Your task to perform on an android device: read, delete, or share a saved page in the chrome app Image 0: 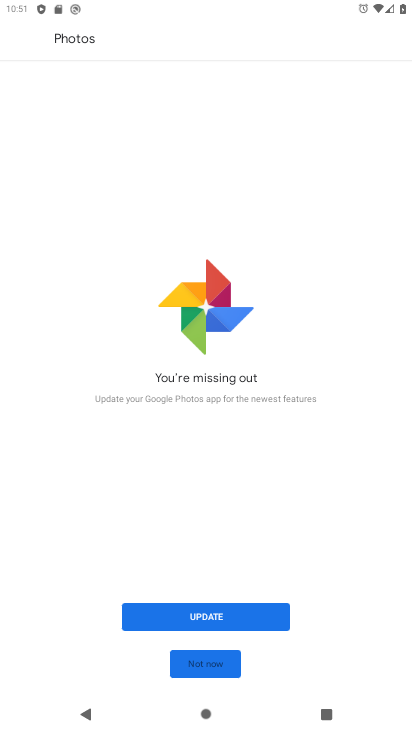
Step 0: press home button
Your task to perform on an android device: read, delete, or share a saved page in the chrome app Image 1: 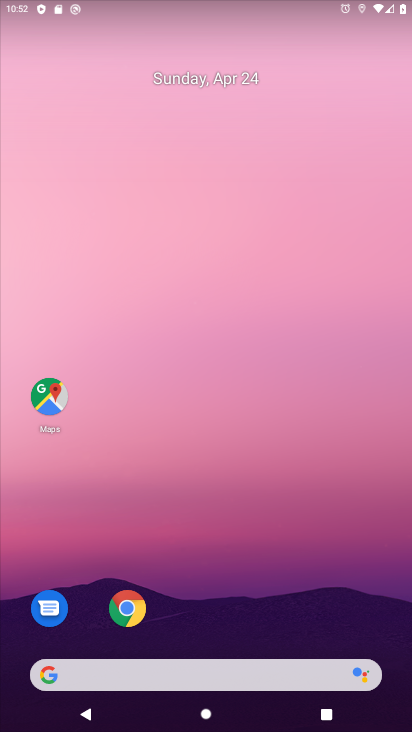
Step 1: click (128, 608)
Your task to perform on an android device: read, delete, or share a saved page in the chrome app Image 2: 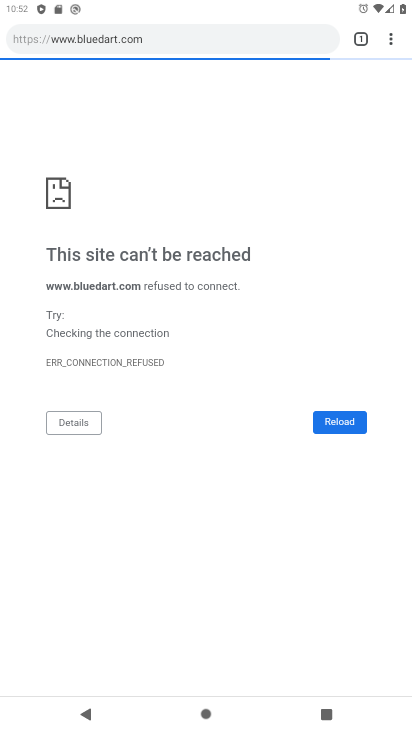
Step 2: click (392, 42)
Your task to perform on an android device: read, delete, or share a saved page in the chrome app Image 3: 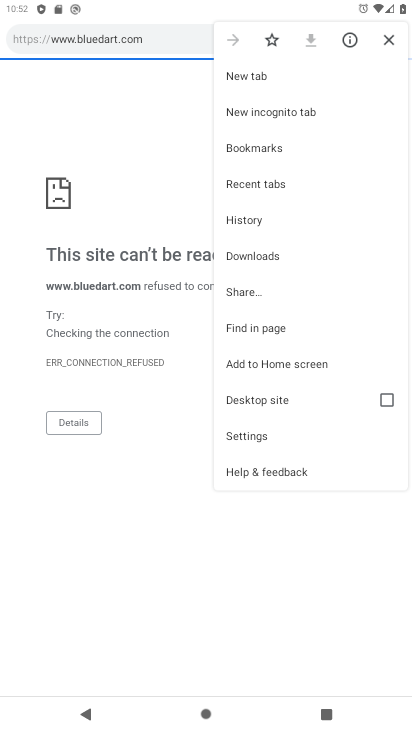
Step 3: click (254, 252)
Your task to perform on an android device: read, delete, or share a saved page in the chrome app Image 4: 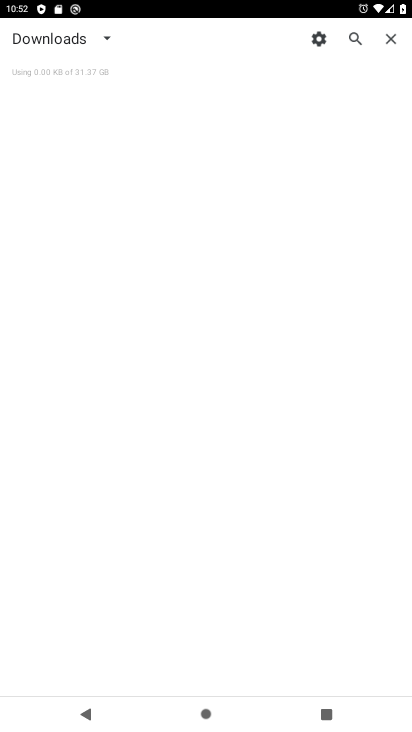
Step 4: click (102, 33)
Your task to perform on an android device: read, delete, or share a saved page in the chrome app Image 5: 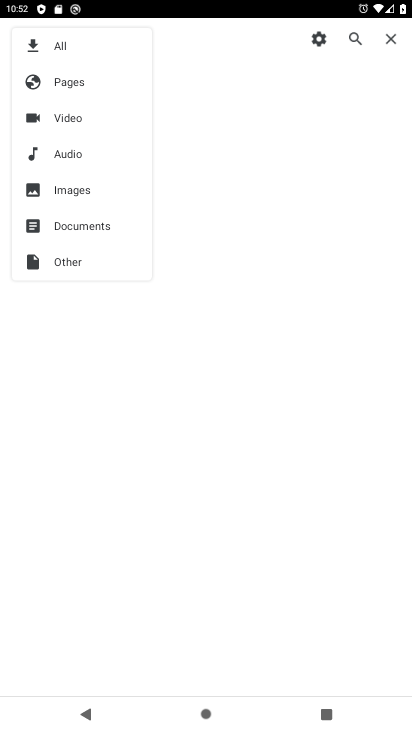
Step 5: click (64, 80)
Your task to perform on an android device: read, delete, or share a saved page in the chrome app Image 6: 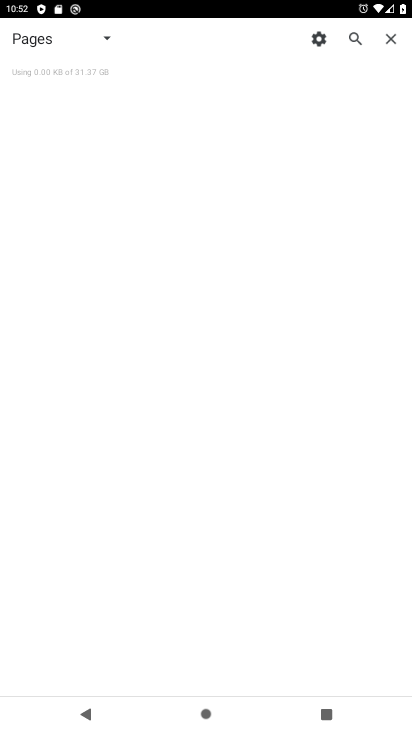
Step 6: task complete